Your task to perform on an android device: Open eBay Image 0: 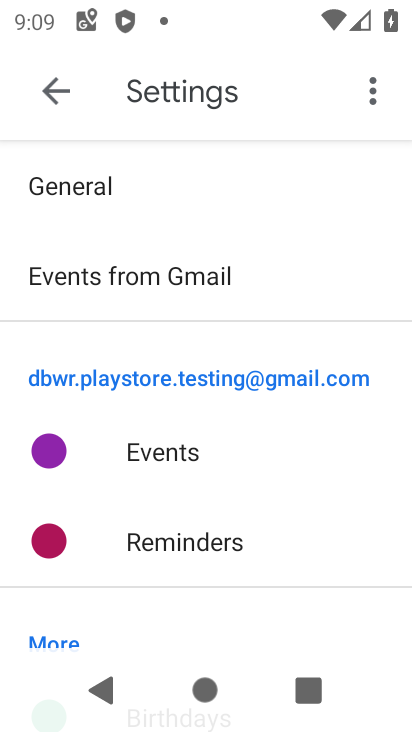
Step 0: press home button
Your task to perform on an android device: Open eBay Image 1: 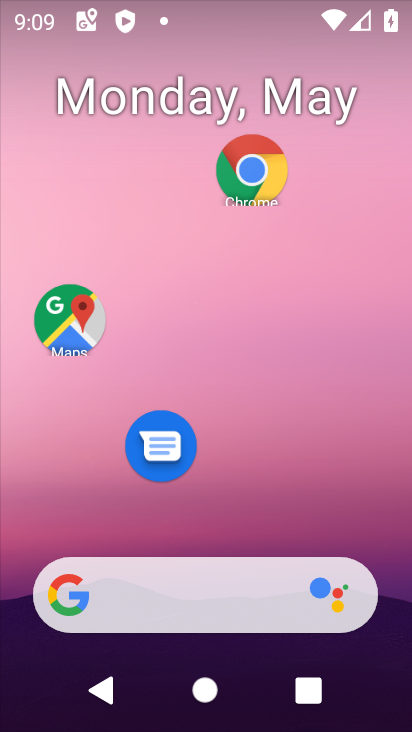
Step 1: click (251, 162)
Your task to perform on an android device: Open eBay Image 2: 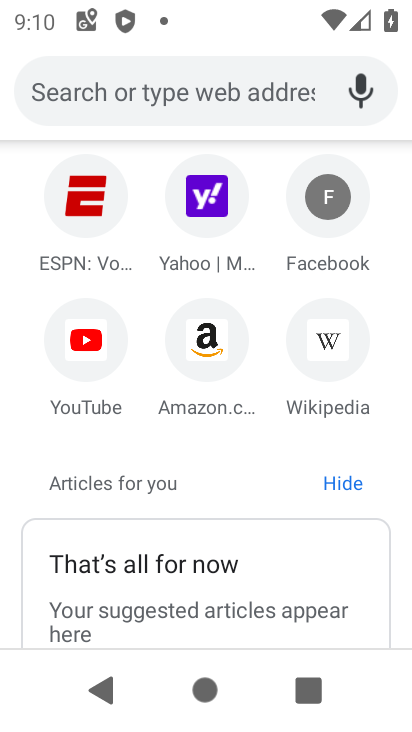
Step 2: click (155, 84)
Your task to perform on an android device: Open eBay Image 3: 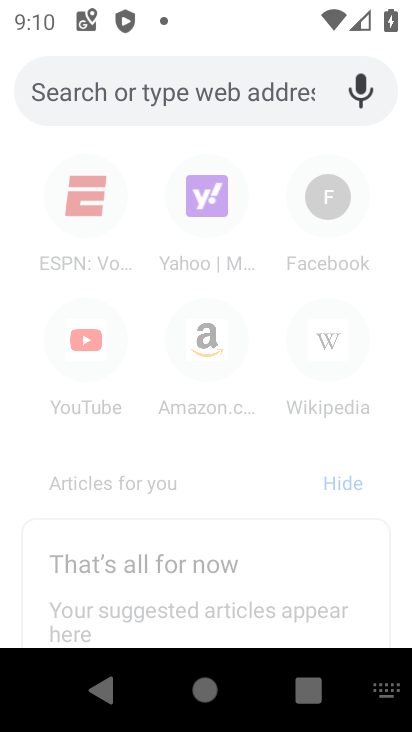
Step 3: type "ebay"
Your task to perform on an android device: Open eBay Image 4: 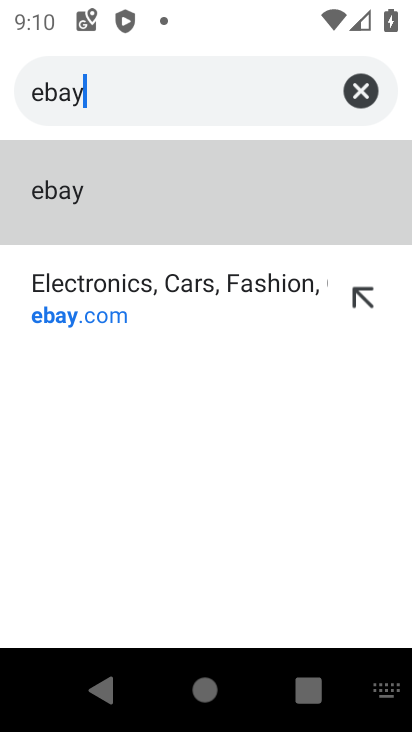
Step 4: click (140, 306)
Your task to perform on an android device: Open eBay Image 5: 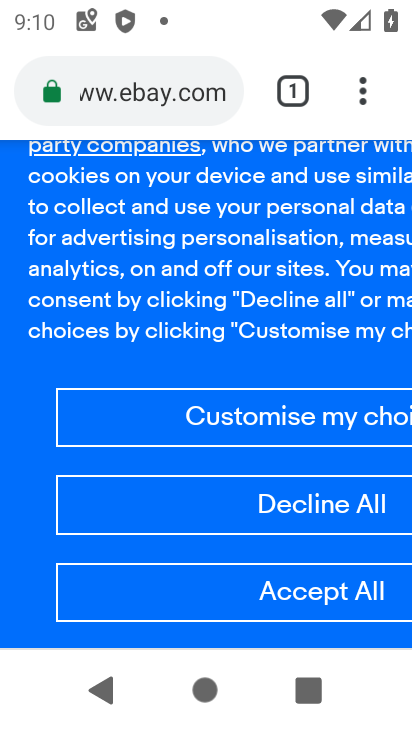
Step 5: click (323, 593)
Your task to perform on an android device: Open eBay Image 6: 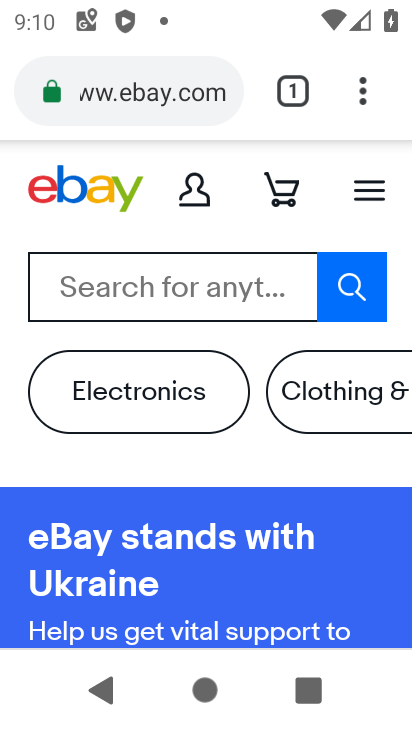
Step 6: task complete